Your task to perform on an android device: Search for good Japanese restaurants Image 0: 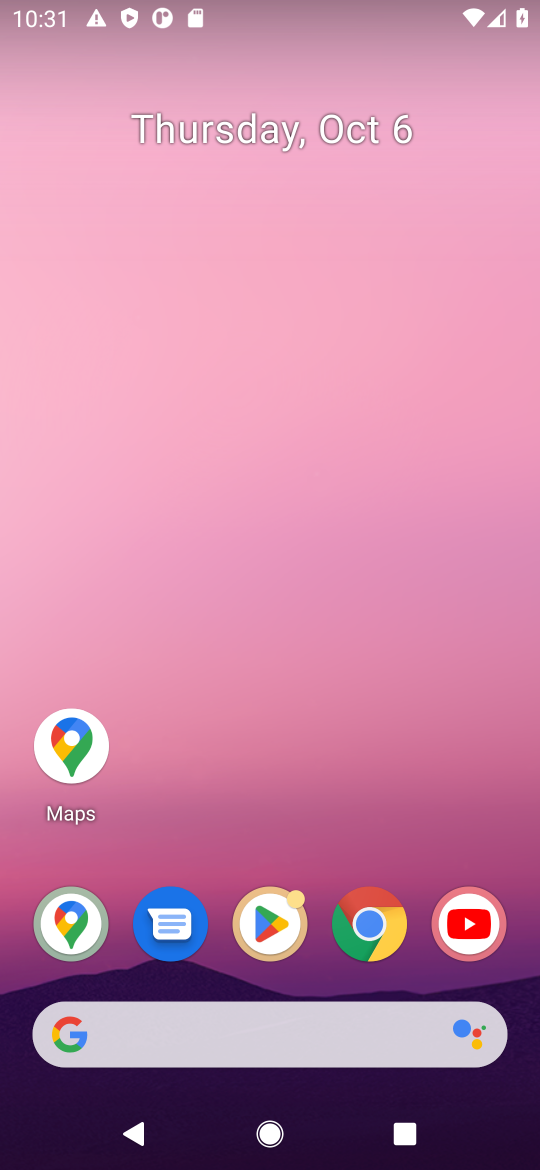
Step 0: click (70, 740)
Your task to perform on an android device: Search for good Japanese restaurants Image 1: 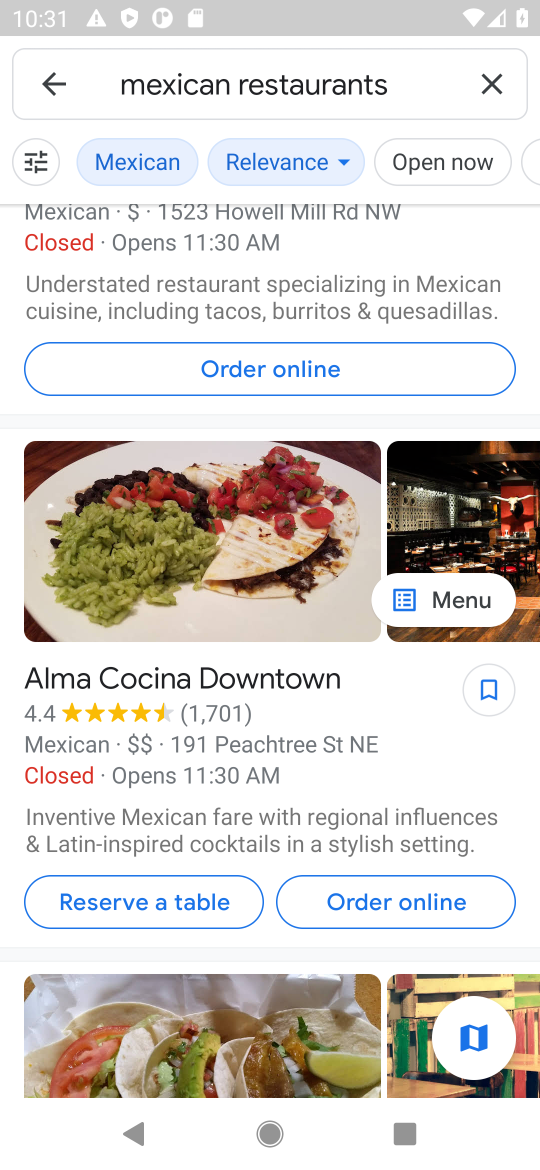
Step 1: click (488, 86)
Your task to perform on an android device: Search for good Japanese restaurants Image 2: 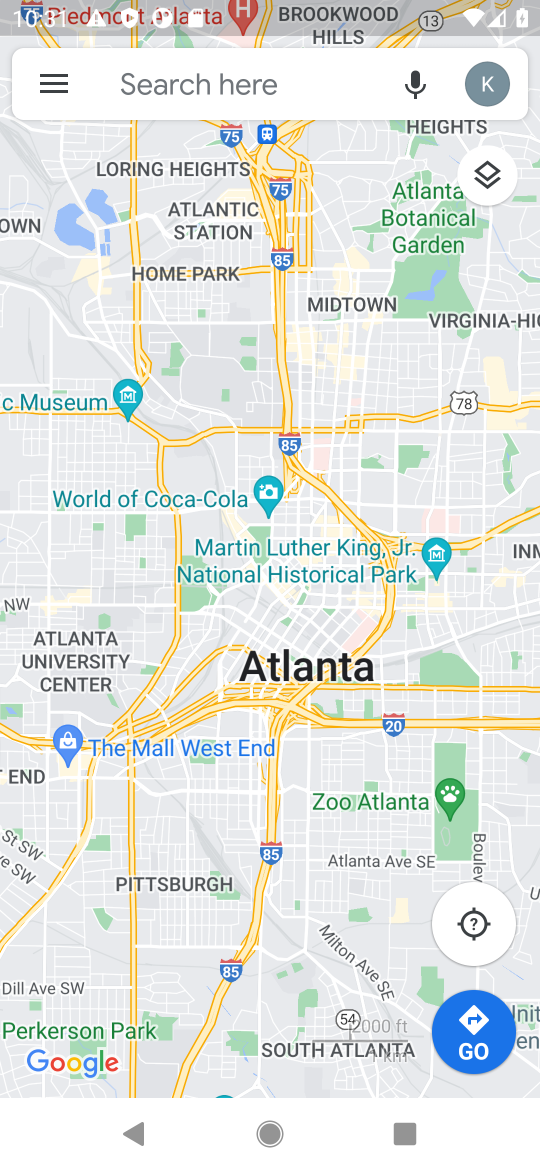
Step 2: click (151, 74)
Your task to perform on an android device: Search for good Japanese restaurants Image 3: 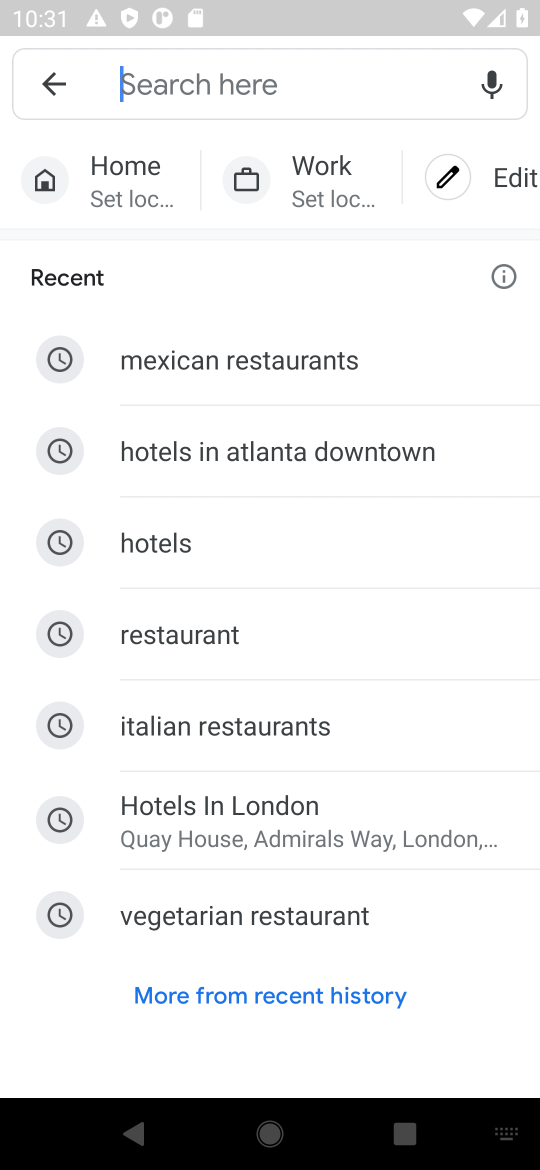
Step 3: type "Japanese restaurants"
Your task to perform on an android device: Search for good Japanese restaurants Image 4: 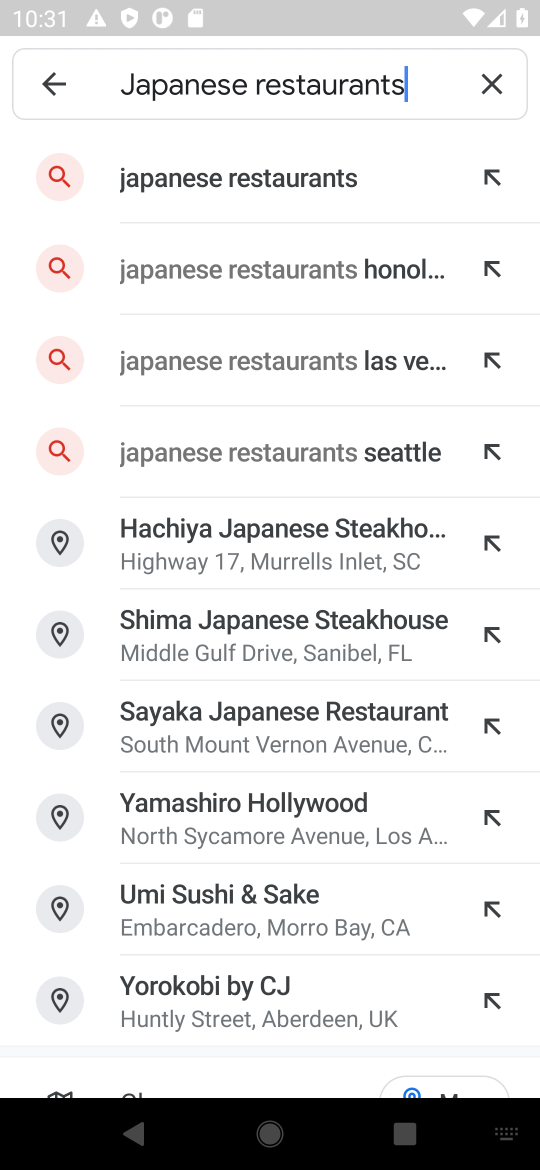
Step 4: click (308, 163)
Your task to perform on an android device: Search for good Japanese restaurants Image 5: 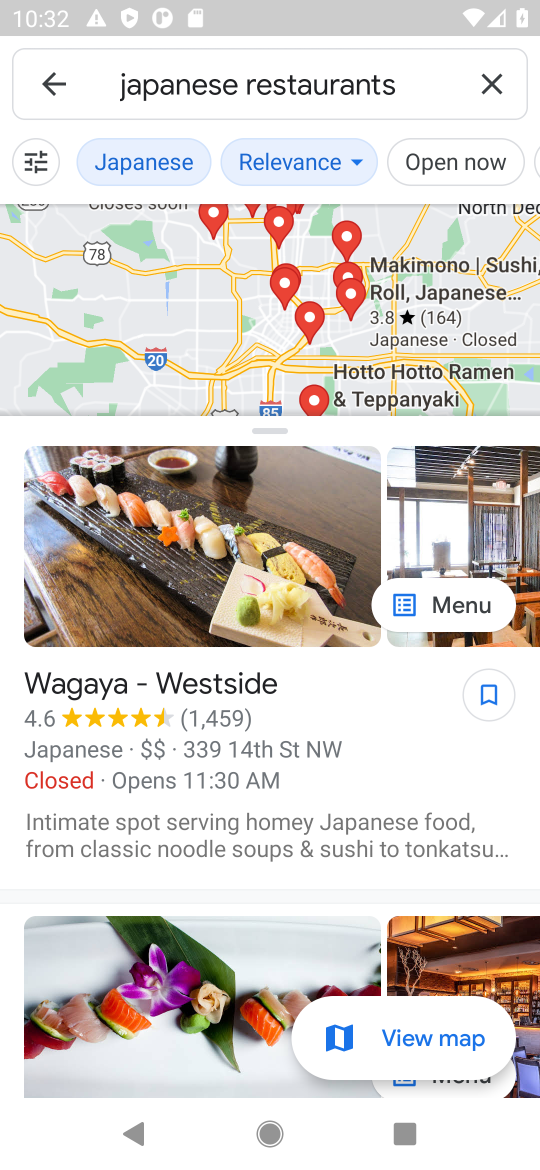
Step 5: task complete